Your task to perform on an android device: stop showing notifications on the lock screen Image 0: 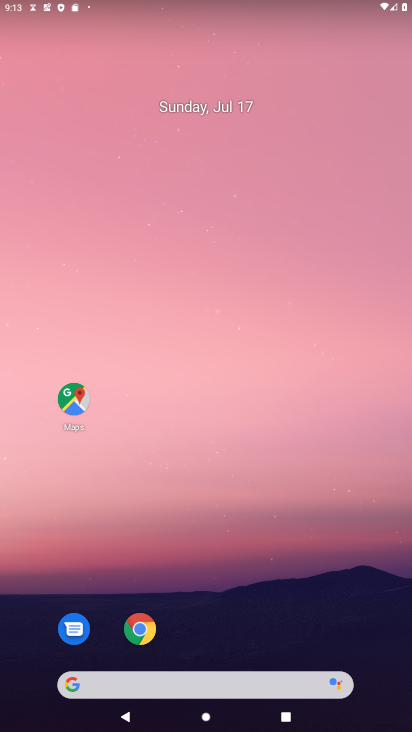
Step 0: drag from (229, 702) to (222, 93)
Your task to perform on an android device: stop showing notifications on the lock screen Image 1: 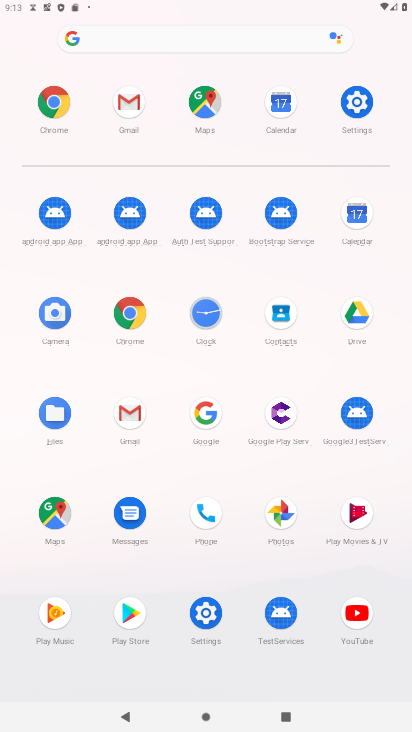
Step 1: click (356, 100)
Your task to perform on an android device: stop showing notifications on the lock screen Image 2: 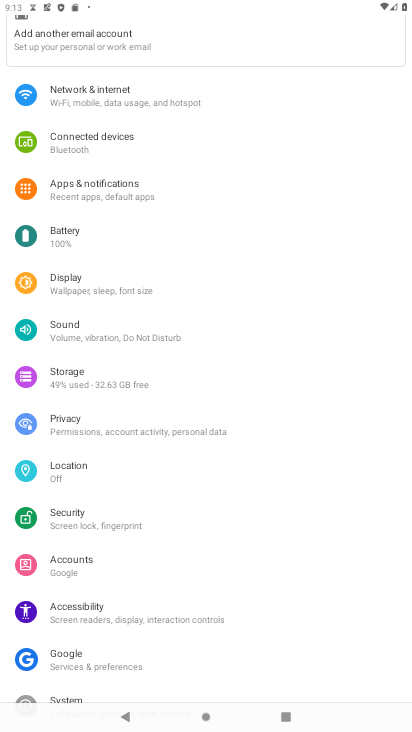
Step 2: click (98, 188)
Your task to perform on an android device: stop showing notifications on the lock screen Image 3: 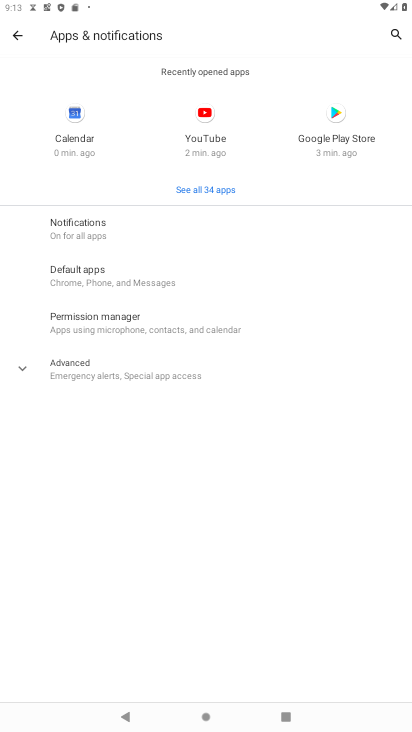
Step 3: click (69, 231)
Your task to perform on an android device: stop showing notifications on the lock screen Image 4: 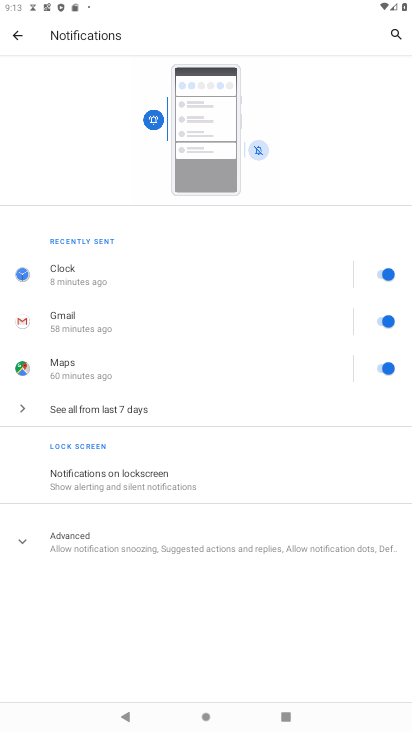
Step 4: click (90, 483)
Your task to perform on an android device: stop showing notifications on the lock screen Image 5: 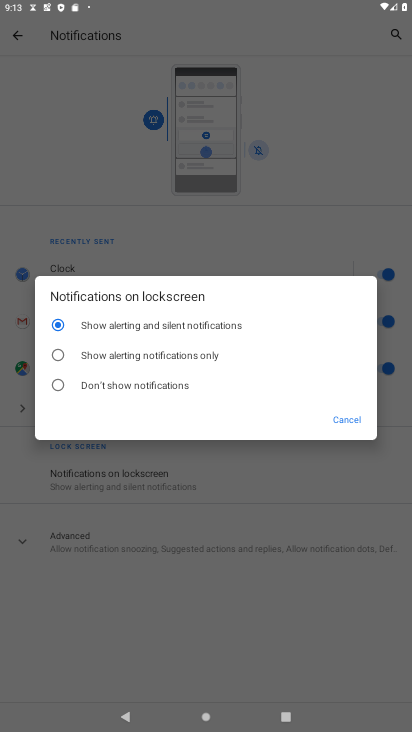
Step 5: click (59, 382)
Your task to perform on an android device: stop showing notifications on the lock screen Image 6: 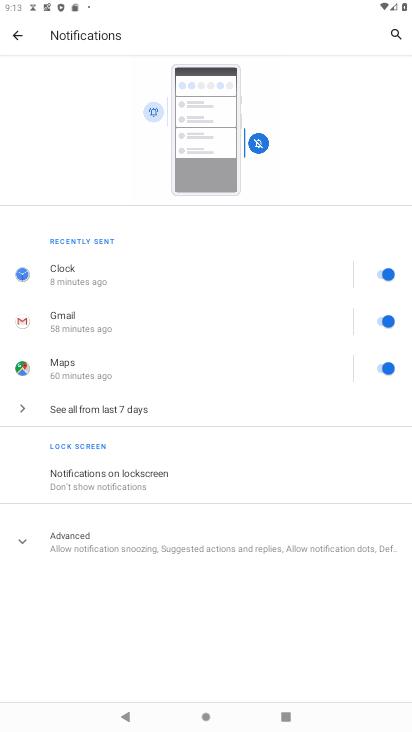
Step 6: task complete